Your task to perform on an android device: Go to CNN.com Image 0: 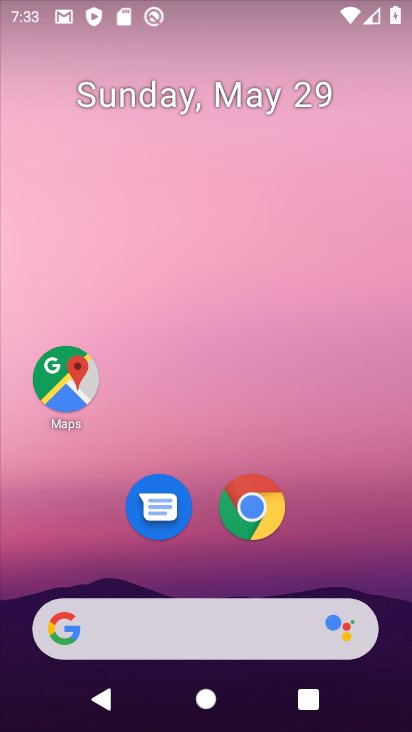
Step 0: click (272, 528)
Your task to perform on an android device: Go to CNN.com Image 1: 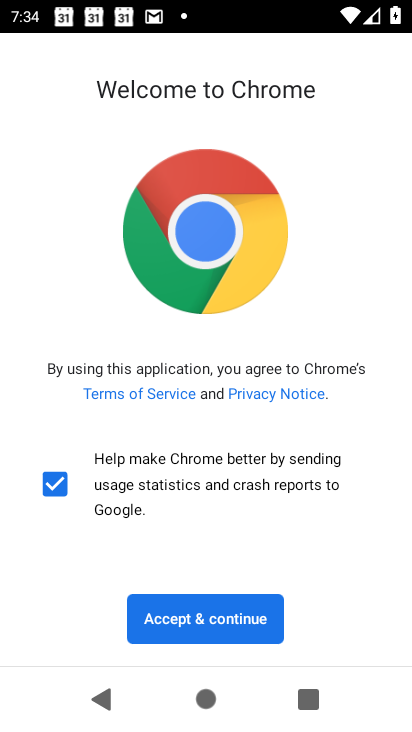
Step 1: click (270, 629)
Your task to perform on an android device: Go to CNN.com Image 2: 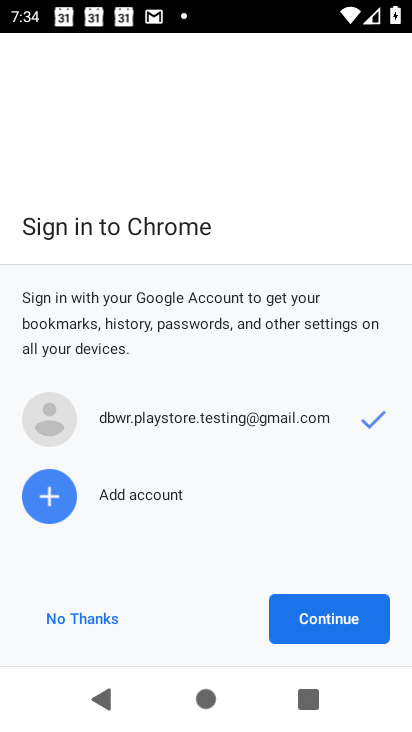
Step 2: click (270, 629)
Your task to perform on an android device: Go to CNN.com Image 3: 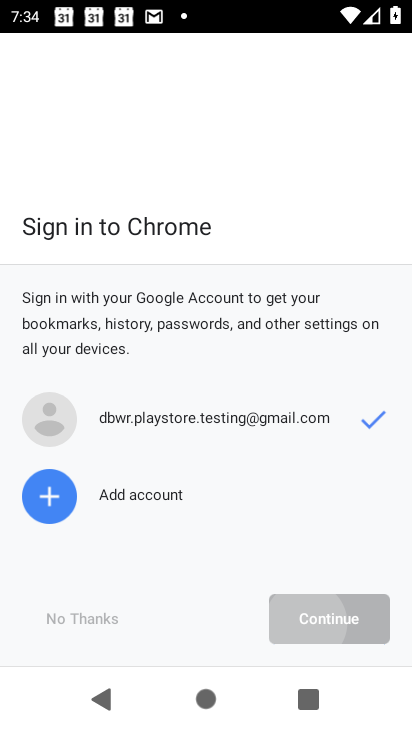
Step 3: click (270, 629)
Your task to perform on an android device: Go to CNN.com Image 4: 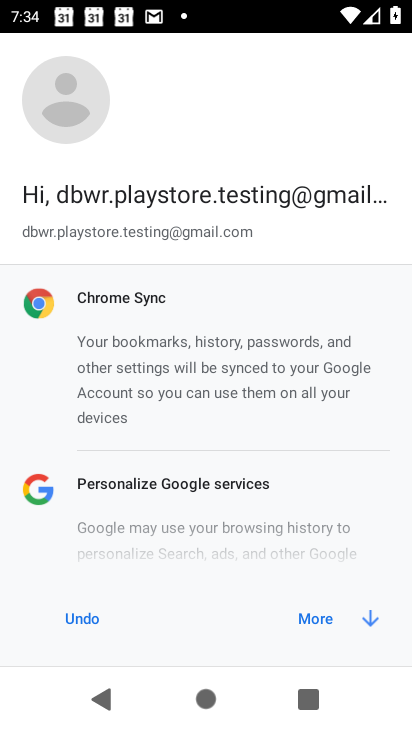
Step 4: click (270, 629)
Your task to perform on an android device: Go to CNN.com Image 5: 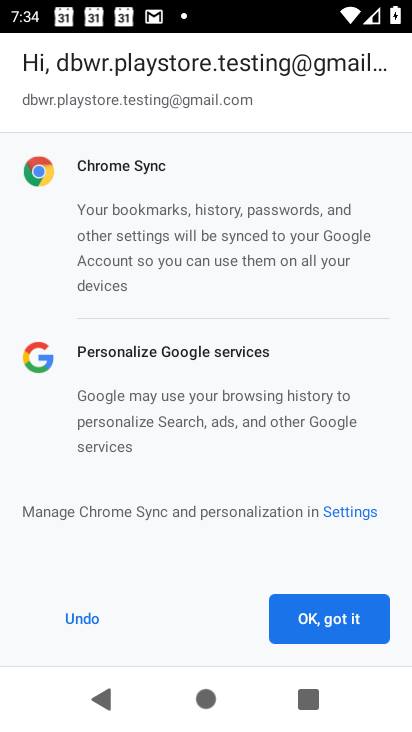
Step 5: click (326, 629)
Your task to perform on an android device: Go to CNN.com Image 6: 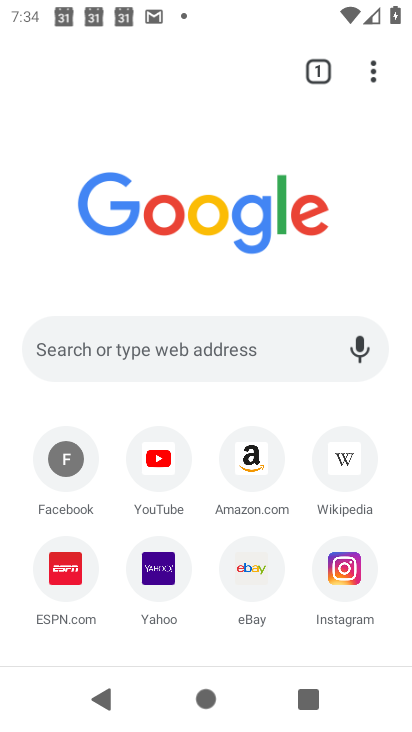
Step 6: click (147, 356)
Your task to perform on an android device: Go to CNN.com Image 7: 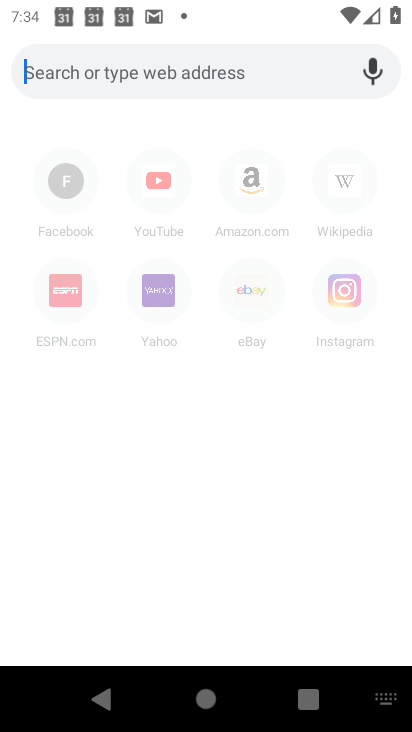
Step 7: type "cnn.com"
Your task to perform on an android device: Go to CNN.com Image 8: 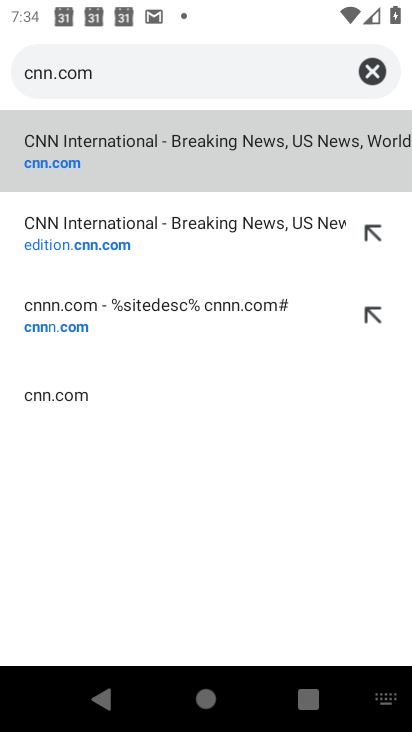
Step 8: click (250, 129)
Your task to perform on an android device: Go to CNN.com Image 9: 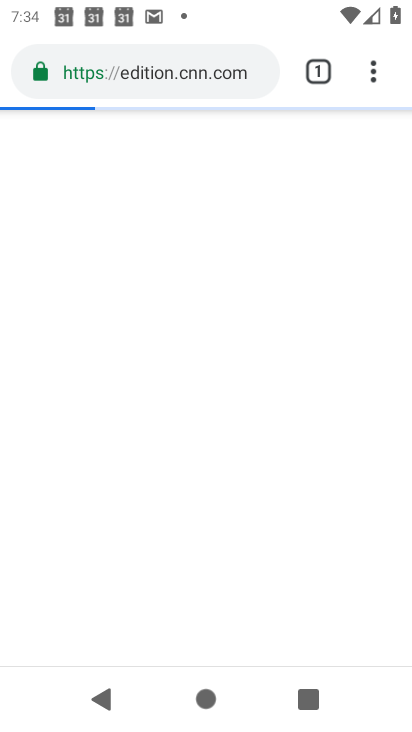
Step 9: task complete